Your task to perform on an android device: What's the weather going to be this weekend? Image 0: 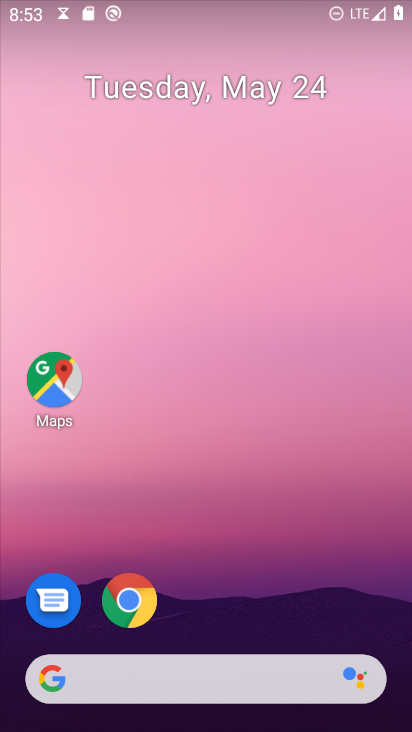
Step 0: click (152, 692)
Your task to perform on an android device: What's the weather going to be this weekend? Image 1: 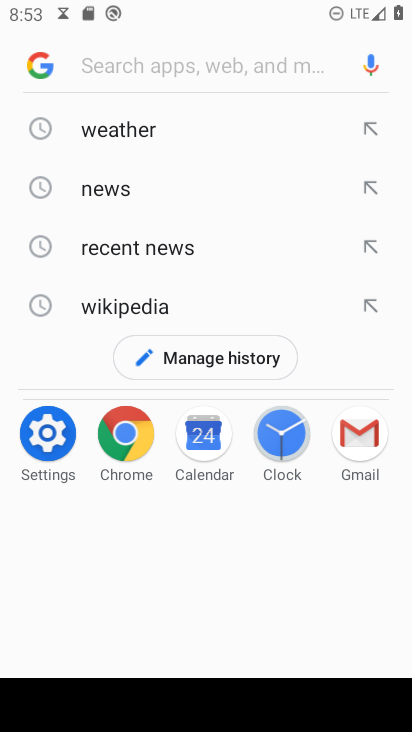
Step 1: click (114, 115)
Your task to perform on an android device: What's the weather going to be this weekend? Image 2: 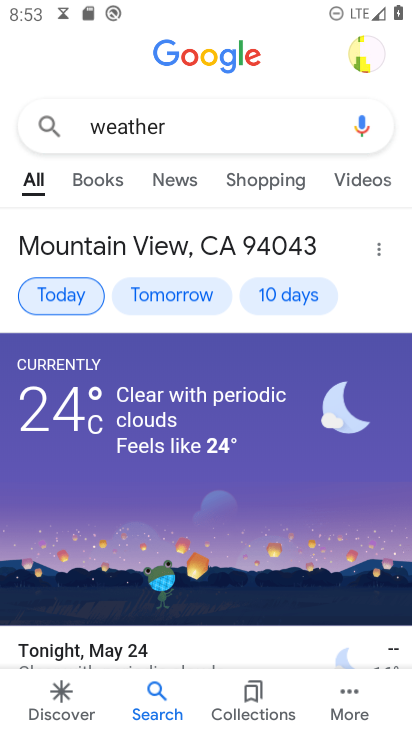
Step 2: click (282, 303)
Your task to perform on an android device: What's the weather going to be this weekend? Image 3: 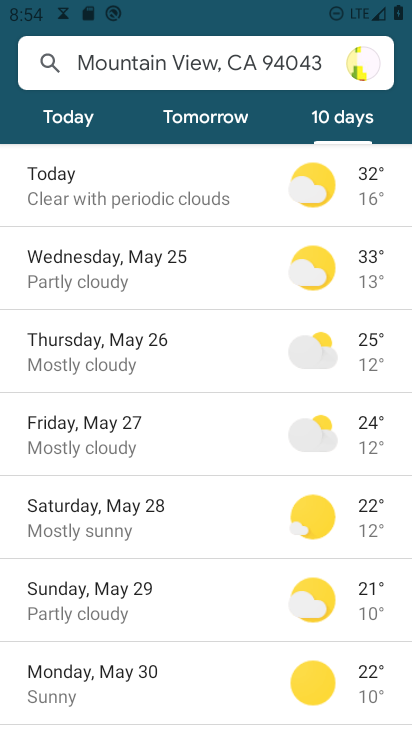
Step 3: task complete